Your task to perform on an android device: refresh tabs in the chrome app Image 0: 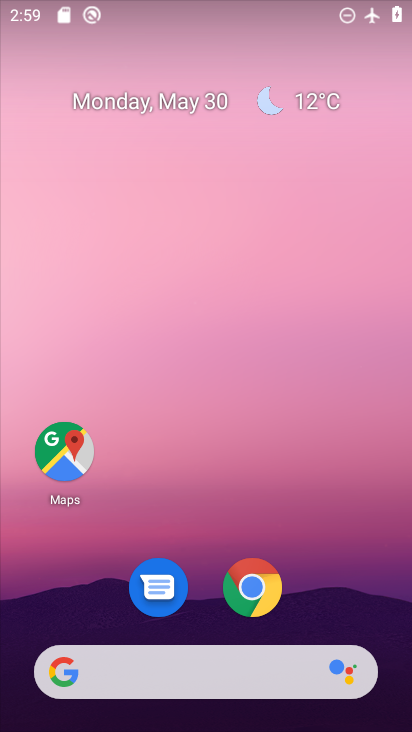
Step 0: click (256, 589)
Your task to perform on an android device: refresh tabs in the chrome app Image 1: 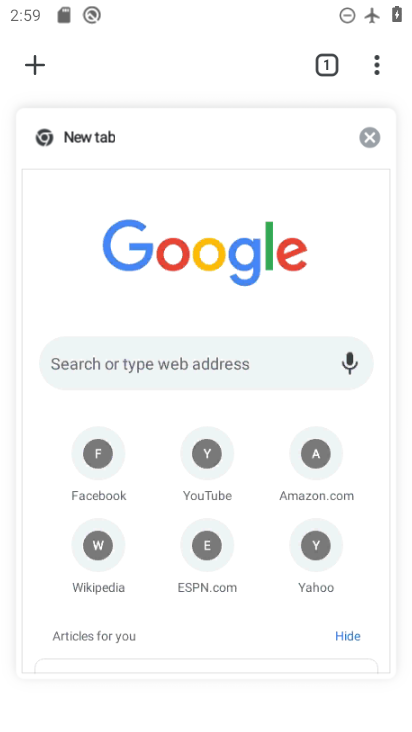
Step 1: click (214, 210)
Your task to perform on an android device: refresh tabs in the chrome app Image 2: 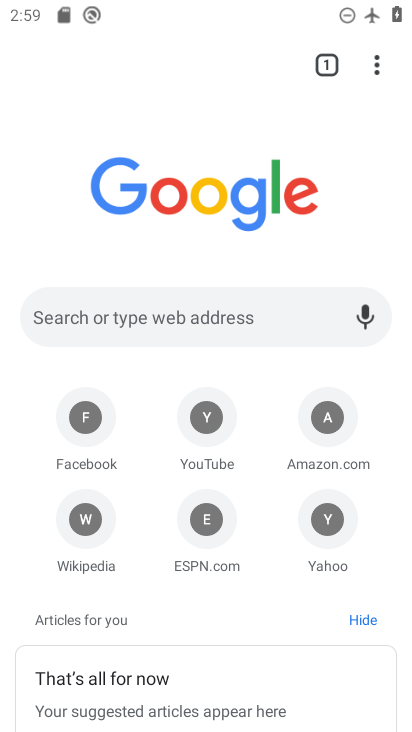
Step 2: click (374, 69)
Your task to perform on an android device: refresh tabs in the chrome app Image 3: 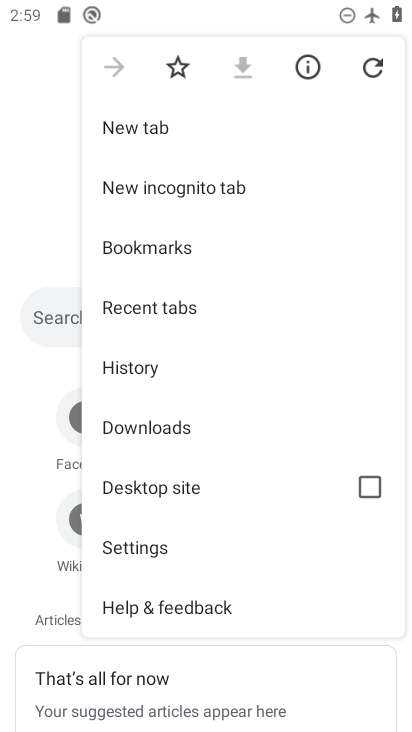
Step 3: click (374, 69)
Your task to perform on an android device: refresh tabs in the chrome app Image 4: 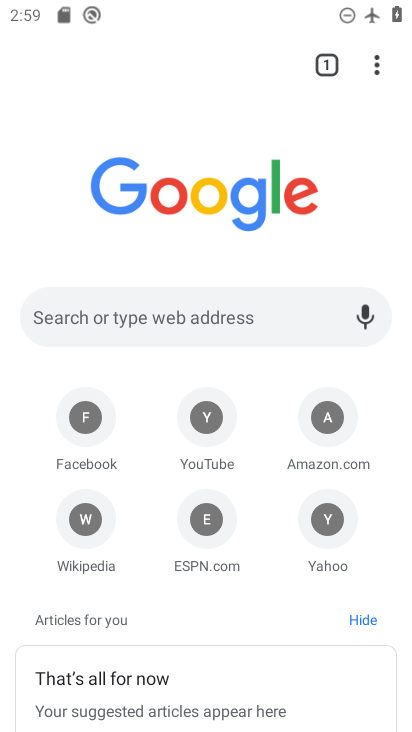
Step 4: task complete